Your task to perform on an android device: change alarm snooze length Image 0: 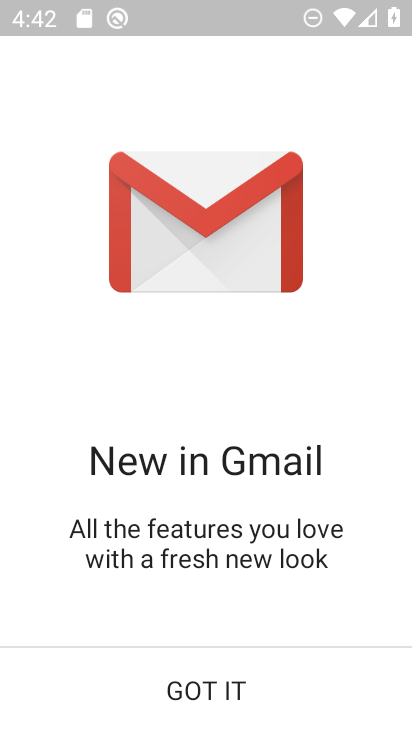
Step 0: press back button
Your task to perform on an android device: change alarm snooze length Image 1: 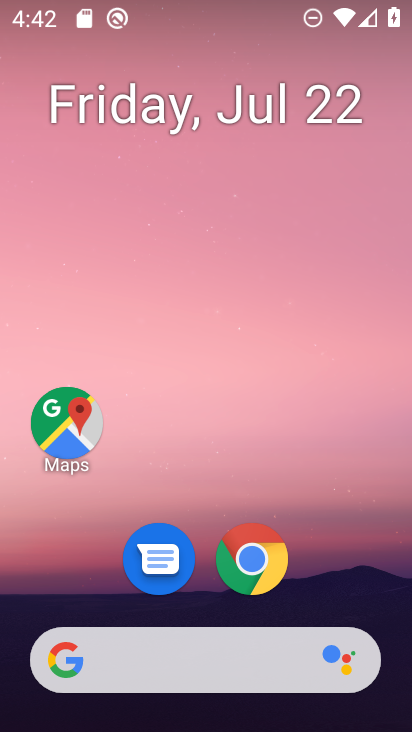
Step 1: drag from (85, 578) to (237, 0)
Your task to perform on an android device: change alarm snooze length Image 2: 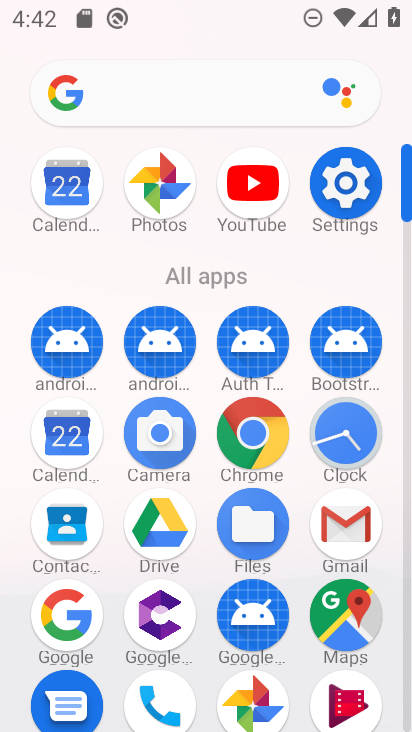
Step 2: click (340, 440)
Your task to perform on an android device: change alarm snooze length Image 3: 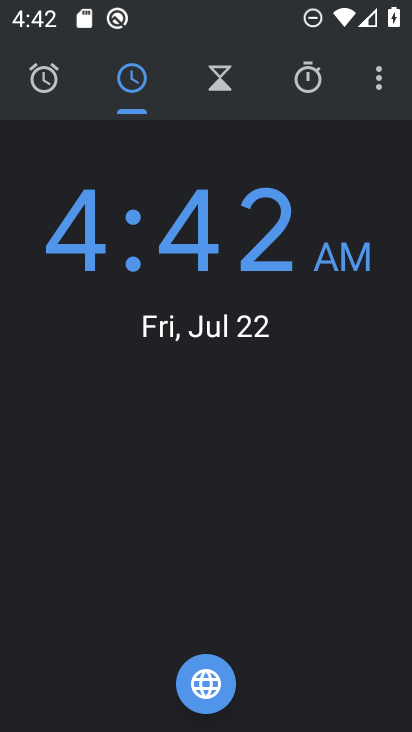
Step 3: click (386, 82)
Your task to perform on an android device: change alarm snooze length Image 4: 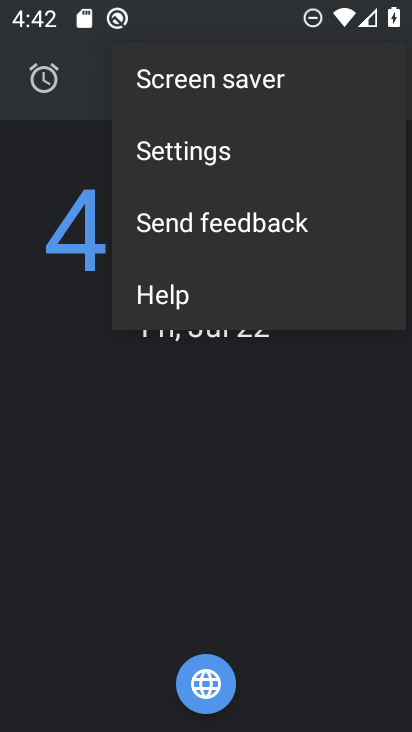
Step 4: click (205, 147)
Your task to perform on an android device: change alarm snooze length Image 5: 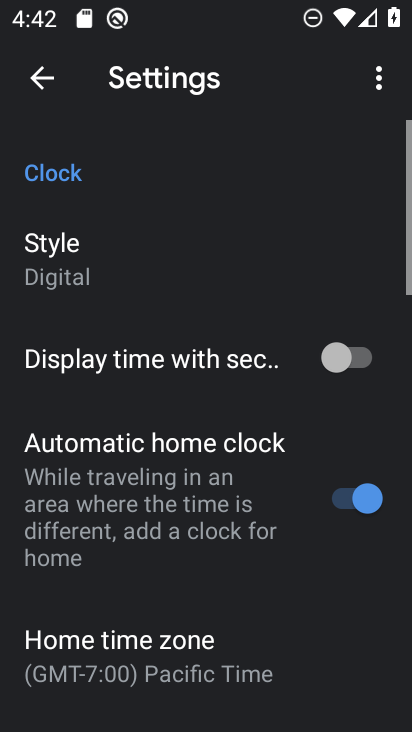
Step 5: drag from (175, 604) to (257, 104)
Your task to perform on an android device: change alarm snooze length Image 6: 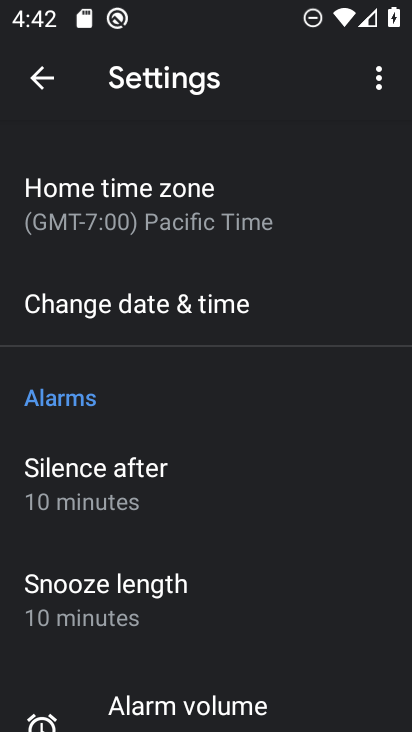
Step 6: click (81, 607)
Your task to perform on an android device: change alarm snooze length Image 7: 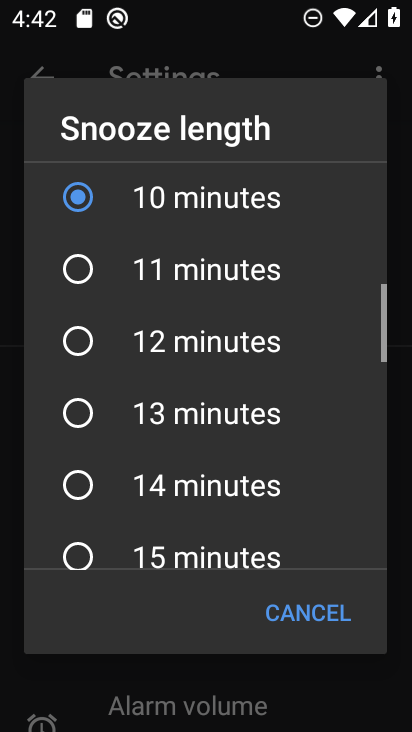
Step 7: click (78, 259)
Your task to perform on an android device: change alarm snooze length Image 8: 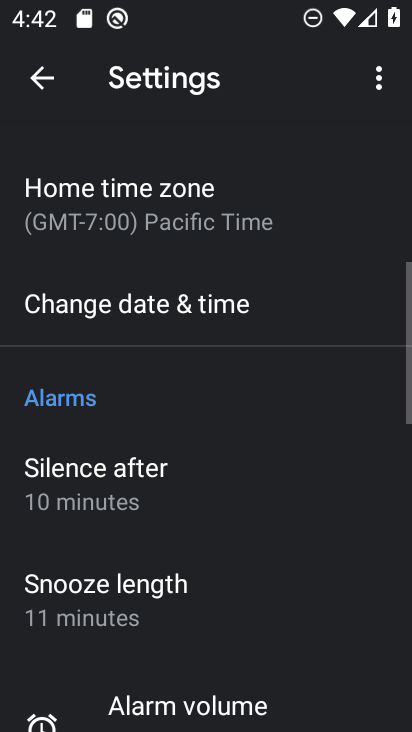
Step 8: task complete